Your task to perform on an android device: check android version Image 0: 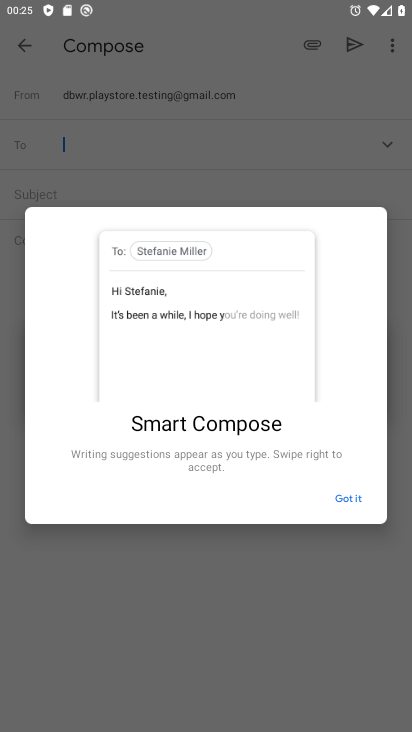
Step 0: press home button
Your task to perform on an android device: check android version Image 1: 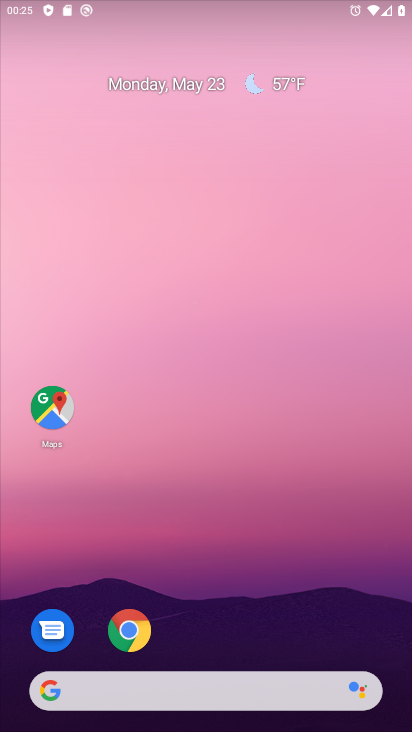
Step 1: drag from (371, 611) to (127, 6)
Your task to perform on an android device: check android version Image 2: 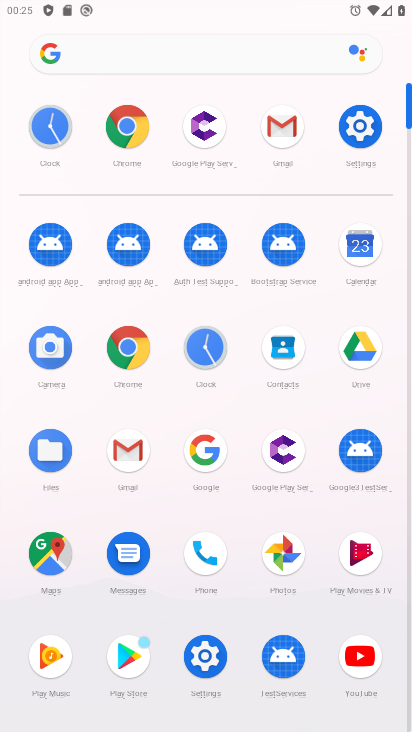
Step 2: click (364, 157)
Your task to perform on an android device: check android version Image 3: 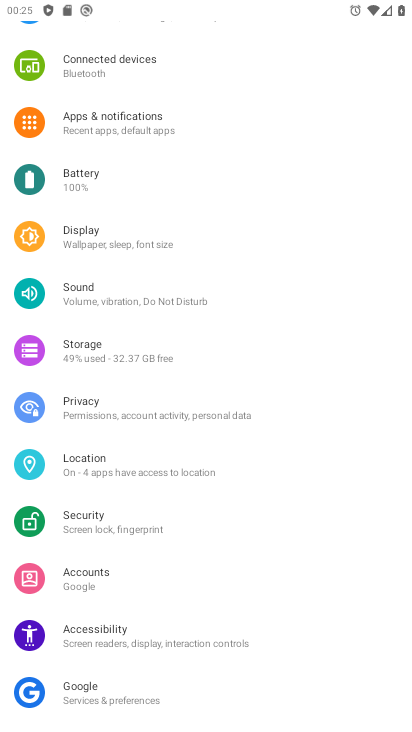
Step 3: drag from (248, 606) to (107, 28)
Your task to perform on an android device: check android version Image 4: 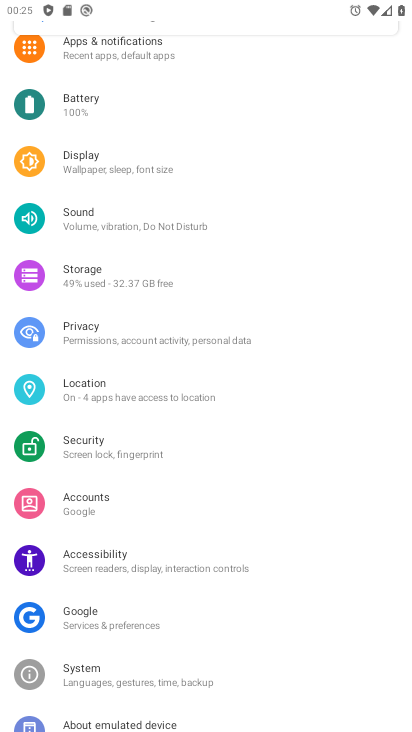
Step 4: drag from (190, 705) to (176, 258)
Your task to perform on an android device: check android version Image 5: 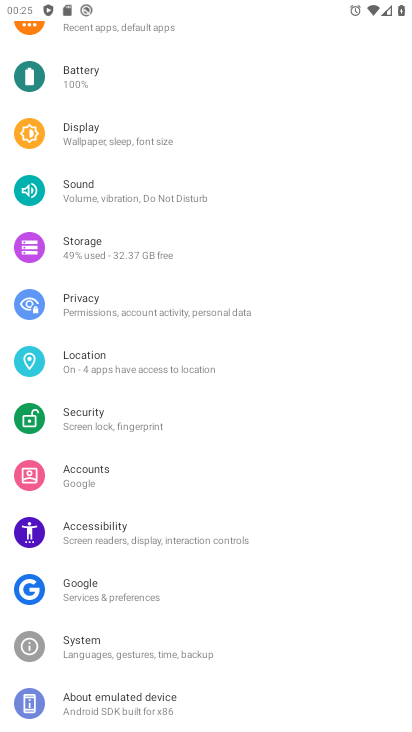
Step 5: click (191, 711)
Your task to perform on an android device: check android version Image 6: 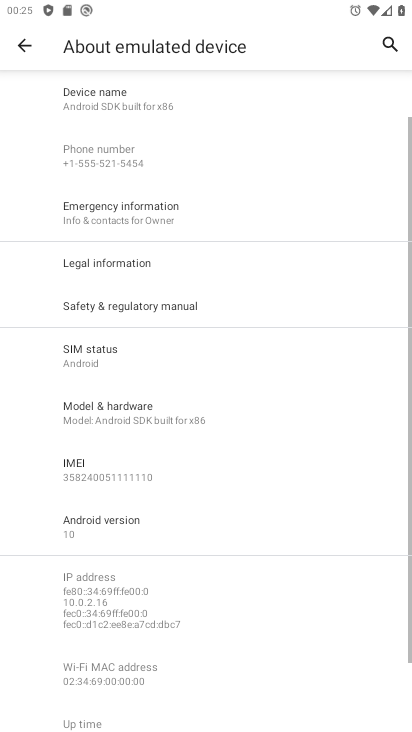
Step 6: click (158, 524)
Your task to perform on an android device: check android version Image 7: 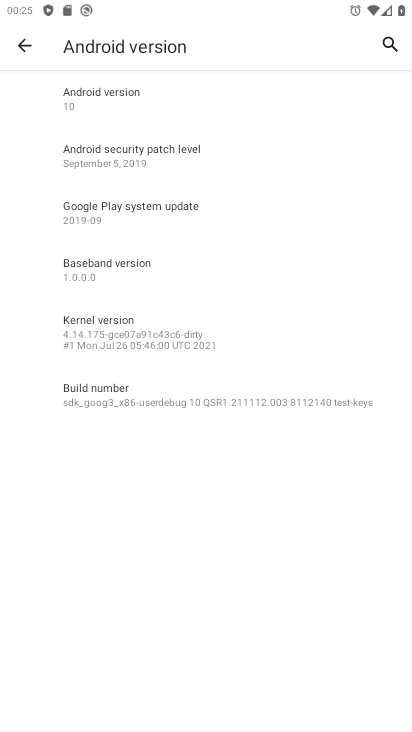
Step 7: task complete